Your task to perform on an android device: Search for Mexican restaurants on Maps Image 0: 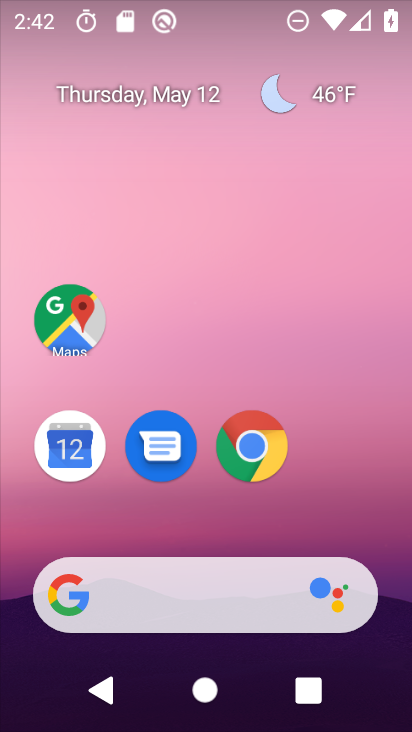
Step 0: click (65, 354)
Your task to perform on an android device: Search for Mexican restaurants on Maps Image 1: 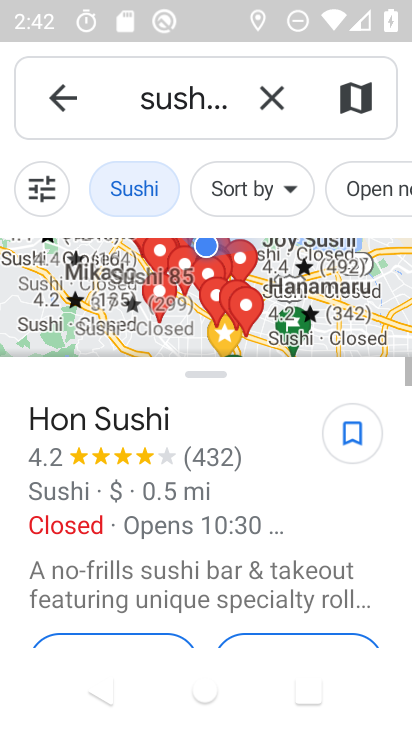
Step 1: click (284, 102)
Your task to perform on an android device: Search for Mexican restaurants on Maps Image 2: 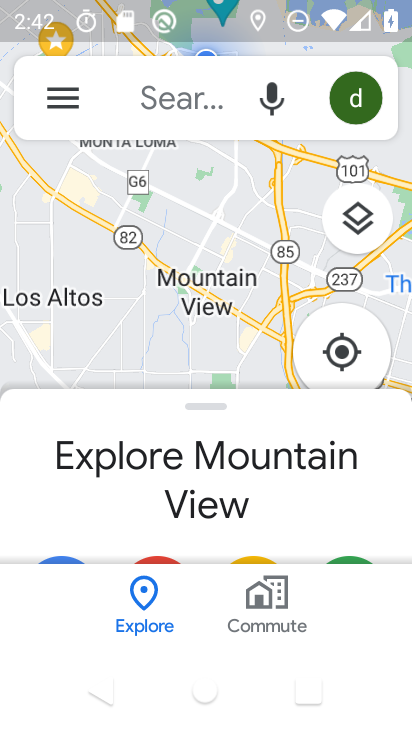
Step 2: type "Mexican restaurants"
Your task to perform on an android device: Search for Mexican restaurants on Maps Image 3: 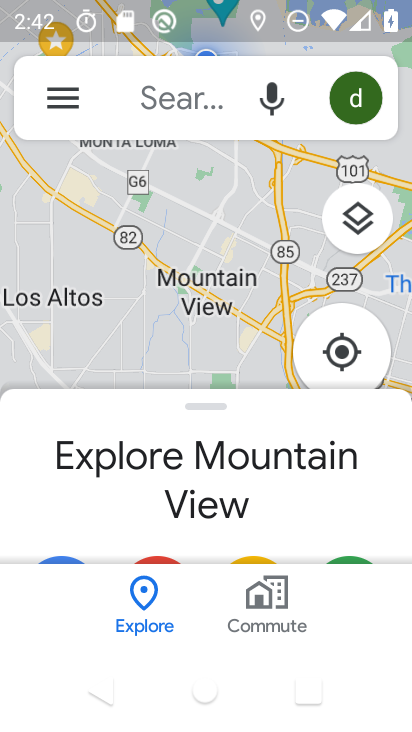
Step 3: click (178, 99)
Your task to perform on an android device: Search for Mexican restaurants on Maps Image 4: 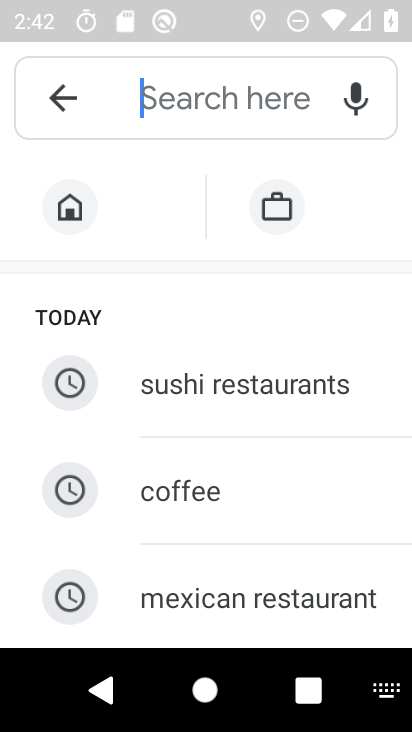
Step 4: type "Mexican restaurants"
Your task to perform on an android device: Search for Mexican restaurants on Maps Image 5: 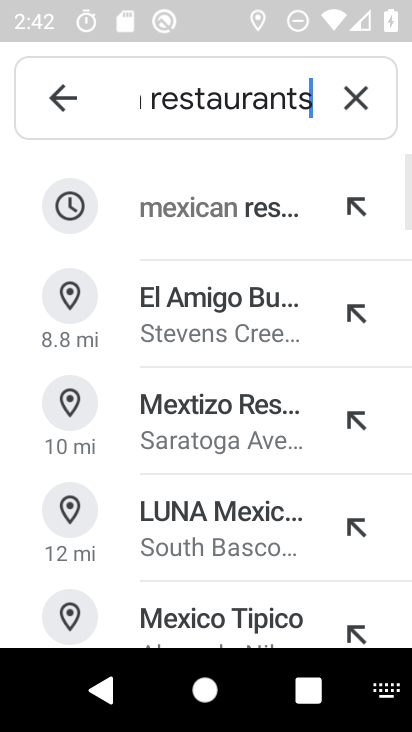
Step 5: click (233, 216)
Your task to perform on an android device: Search for Mexican restaurants on Maps Image 6: 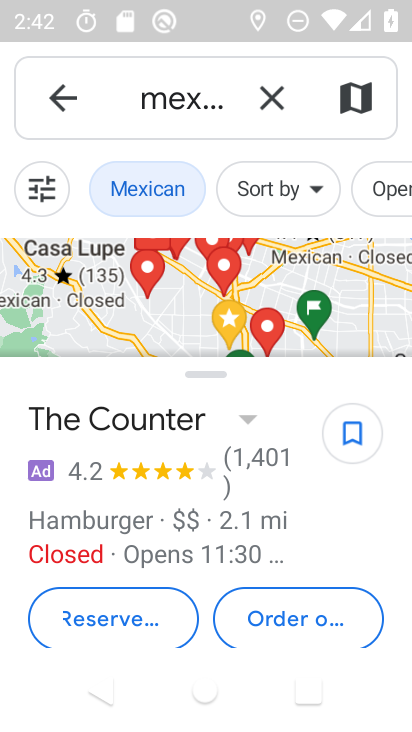
Step 6: task complete